Your task to perform on an android device: Show me the alarms in the clock app Image 0: 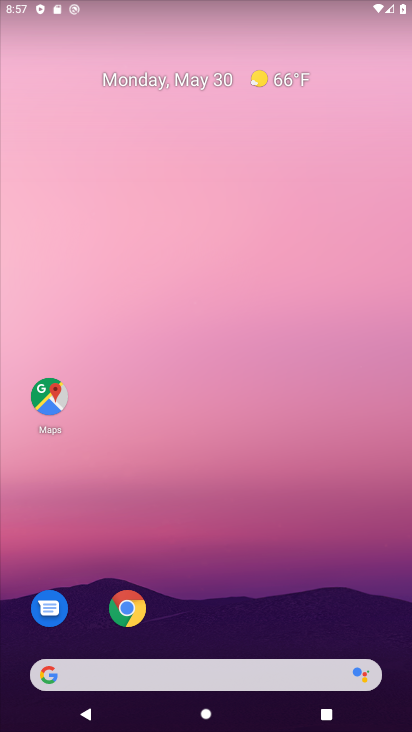
Step 0: drag from (234, 681) to (198, 46)
Your task to perform on an android device: Show me the alarms in the clock app Image 1: 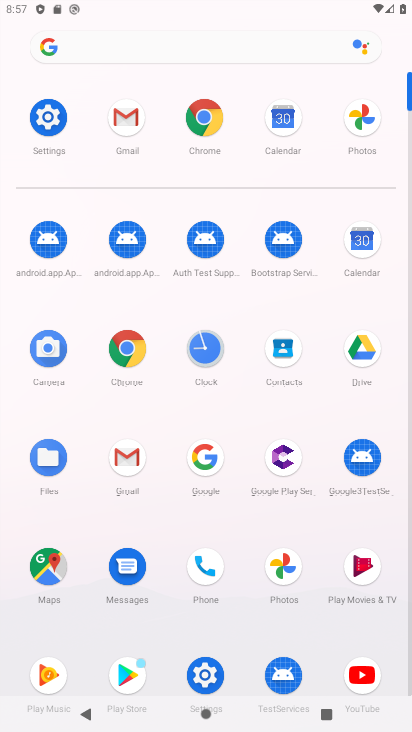
Step 1: click (206, 349)
Your task to perform on an android device: Show me the alarms in the clock app Image 2: 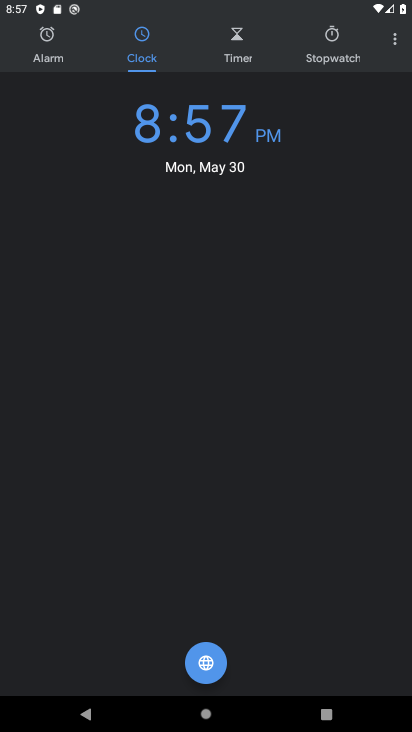
Step 2: click (49, 41)
Your task to perform on an android device: Show me the alarms in the clock app Image 3: 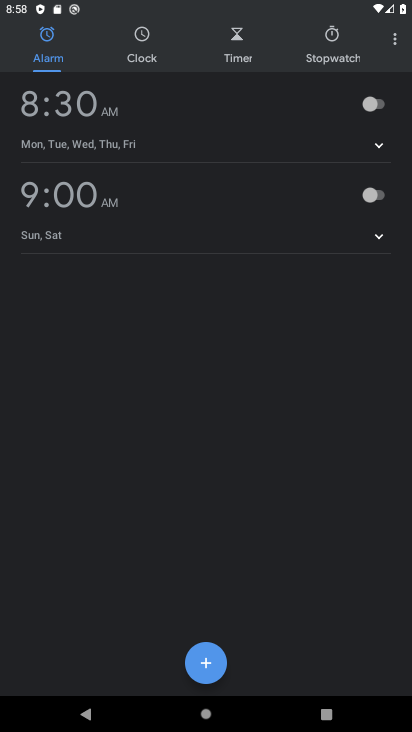
Step 3: task complete